Your task to perform on an android device: Open calendar and show me the second week of next month Image 0: 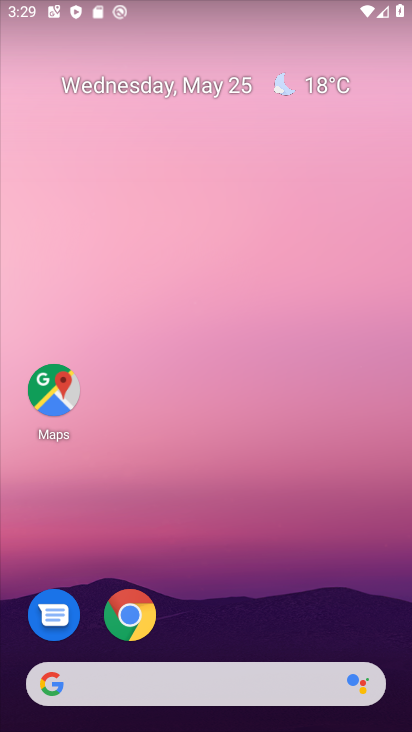
Step 0: click (62, 395)
Your task to perform on an android device: Open calendar and show me the second week of next month Image 1: 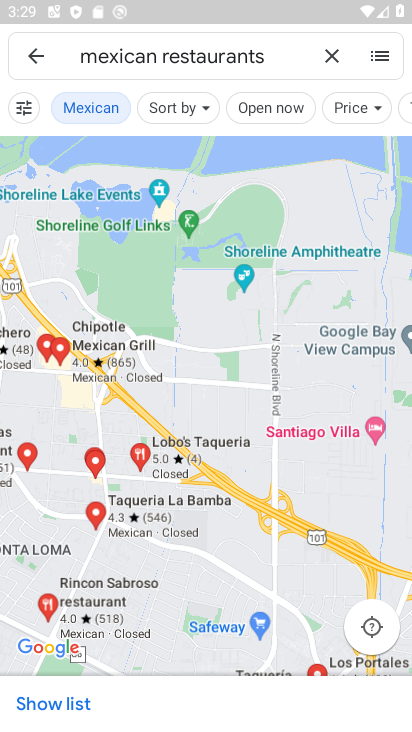
Step 1: drag from (380, 567) to (102, 501)
Your task to perform on an android device: Open calendar and show me the second week of next month Image 2: 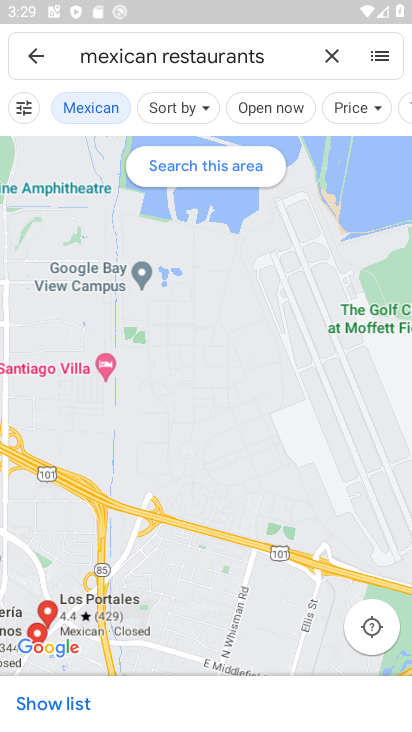
Step 2: click (49, 62)
Your task to perform on an android device: Open calendar and show me the second week of next month Image 3: 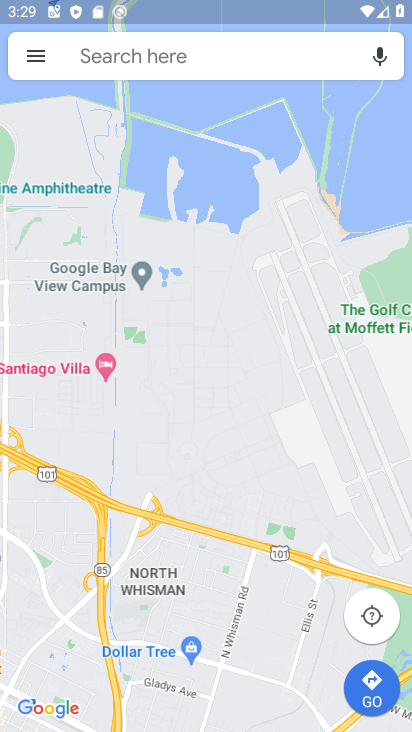
Step 3: click (49, 62)
Your task to perform on an android device: Open calendar and show me the second week of next month Image 4: 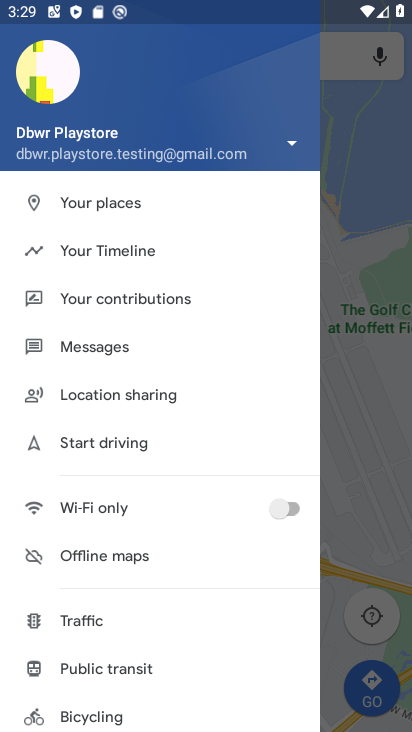
Step 4: drag from (172, 525) to (195, 311)
Your task to perform on an android device: Open calendar and show me the second week of next month Image 5: 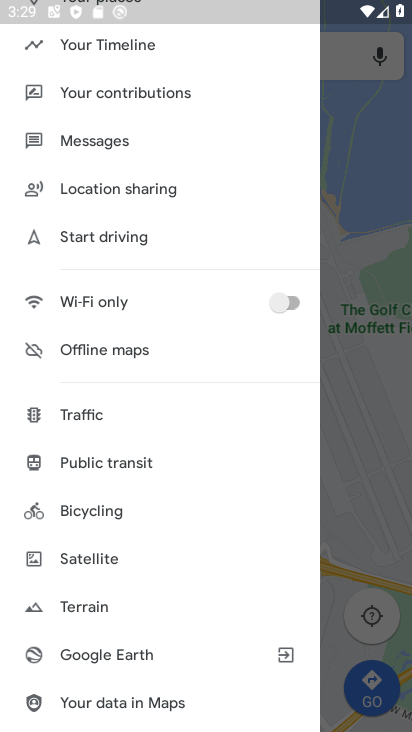
Step 5: press home button
Your task to perform on an android device: Open calendar and show me the second week of next month Image 6: 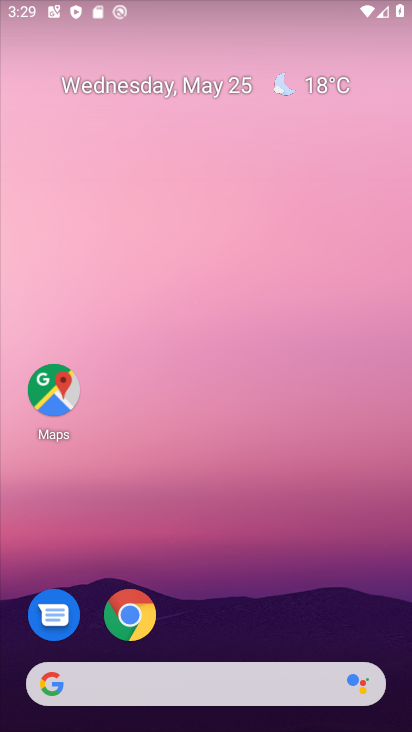
Step 6: drag from (164, 462) to (209, 148)
Your task to perform on an android device: Open calendar and show me the second week of next month Image 7: 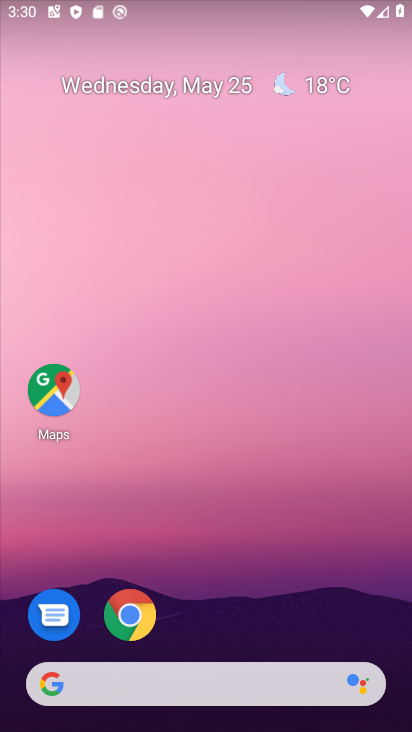
Step 7: drag from (240, 565) to (208, 3)
Your task to perform on an android device: Open calendar and show me the second week of next month Image 8: 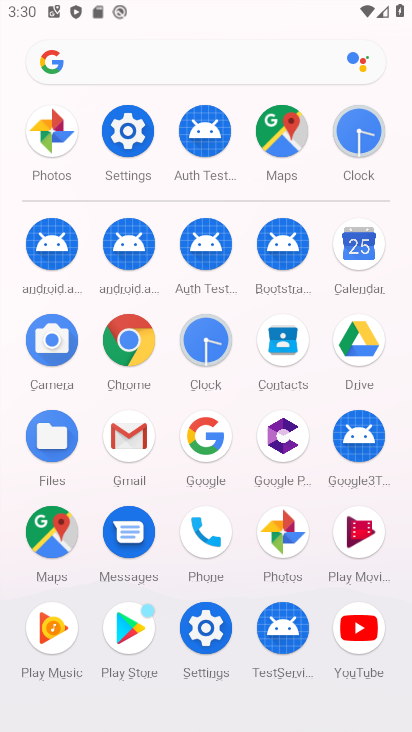
Step 8: click (285, 350)
Your task to perform on an android device: Open calendar and show me the second week of next month Image 9: 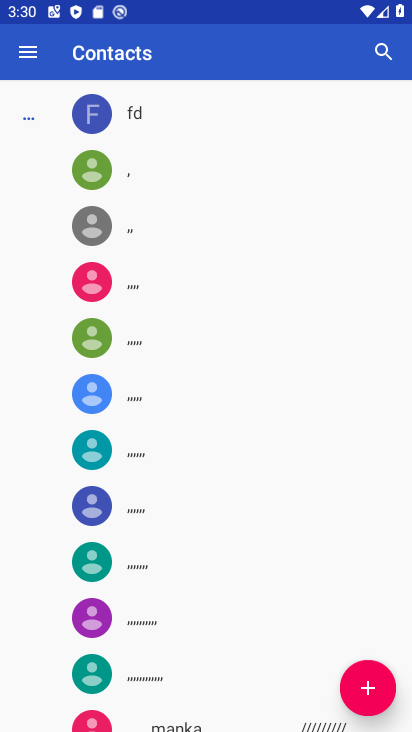
Step 9: press home button
Your task to perform on an android device: Open calendar and show me the second week of next month Image 10: 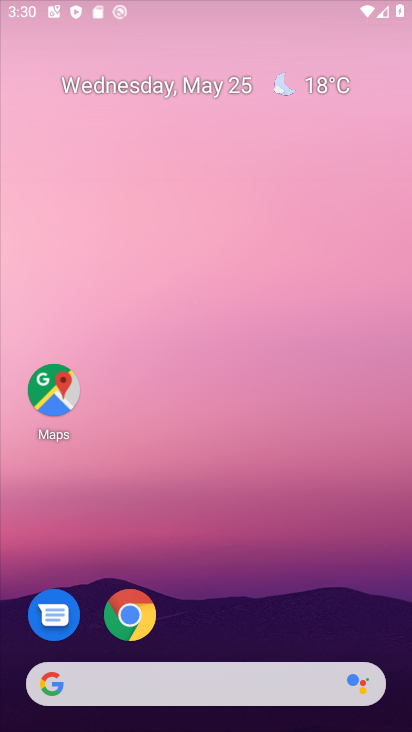
Step 10: drag from (203, 600) to (160, 149)
Your task to perform on an android device: Open calendar and show me the second week of next month Image 11: 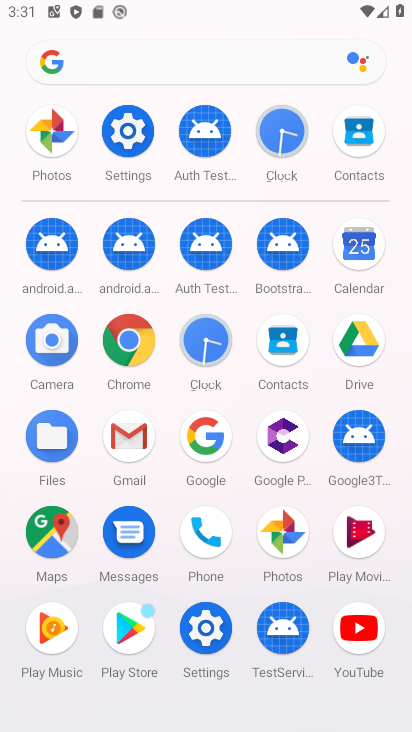
Step 11: click (160, 149)
Your task to perform on an android device: Open calendar and show me the second week of next month Image 12: 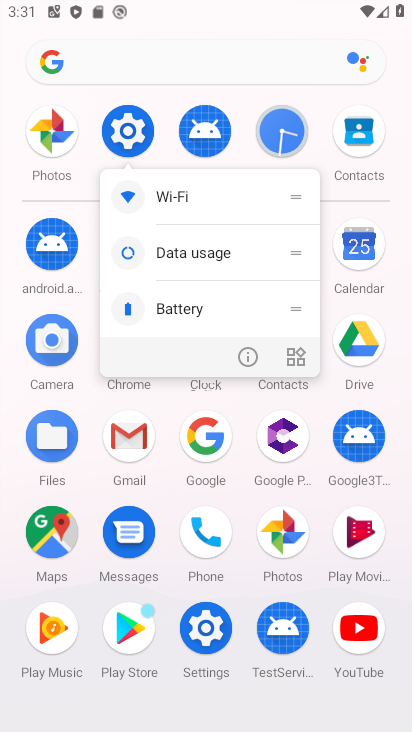
Step 12: drag from (110, 558) to (102, 139)
Your task to perform on an android device: Open calendar and show me the second week of next month Image 13: 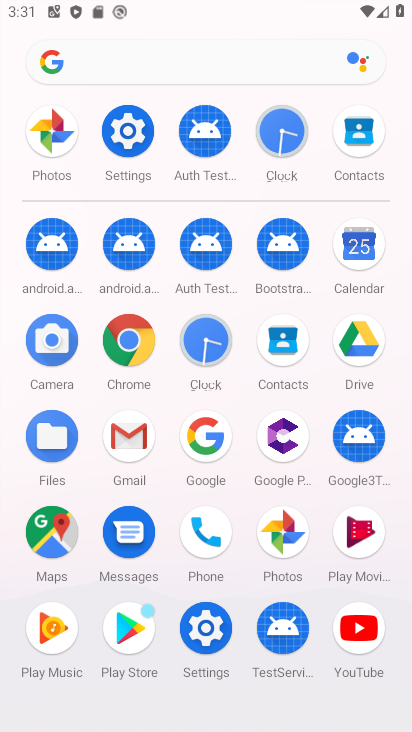
Step 13: click (340, 243)
Your task to perform on an android device: Open calendar and show me the second week of next month Image 14: 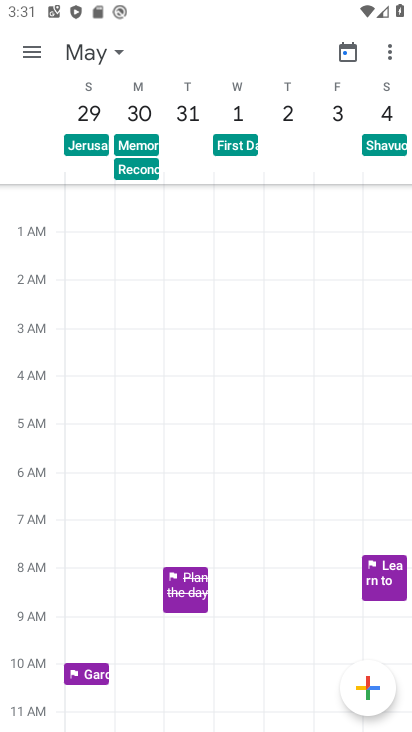
Step 14: click (278, 67)
Your task to perform on an android device: Open calendar and show me the second week of next month Image 15: 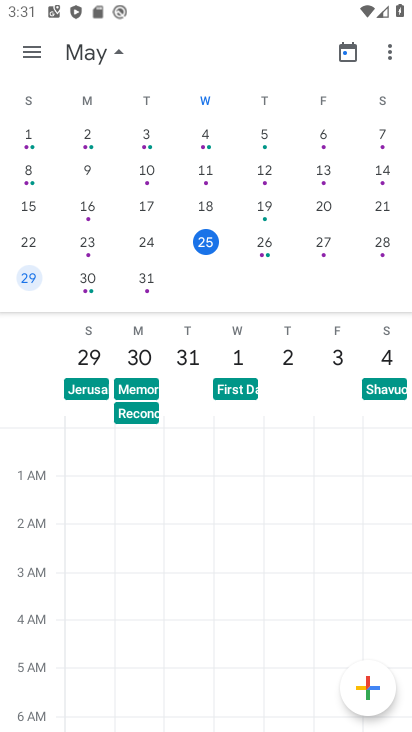
Step 15: drag from (147, 171) to (27, 142)
Your task to perform on an android device: Open calendar and show me the second week of next month Image 16: 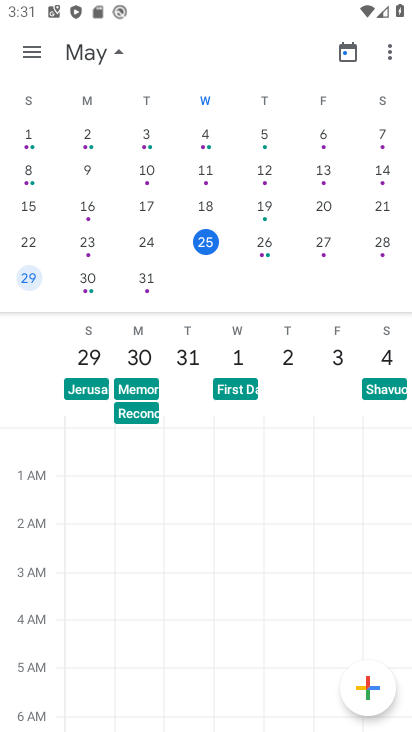
Step 16: drag from (349, 186) to (22, 142)
Your task to perform on an android device: Open calendar and show me the second week of next month Image 17: 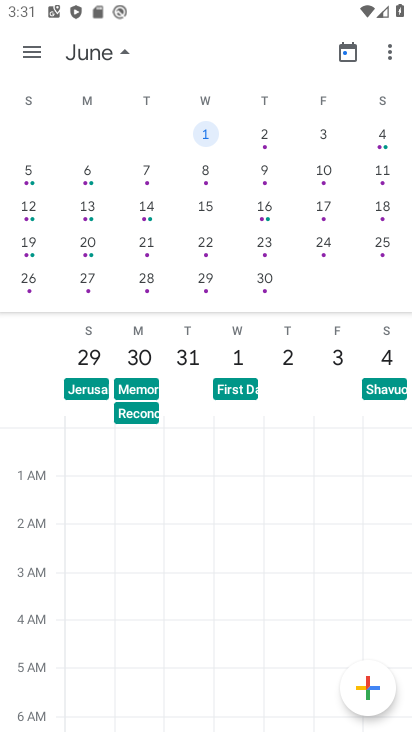
Step 17: click (204, 176)
Your task to perform on an android device: Open calendar and show me the second week of next month Image 18: 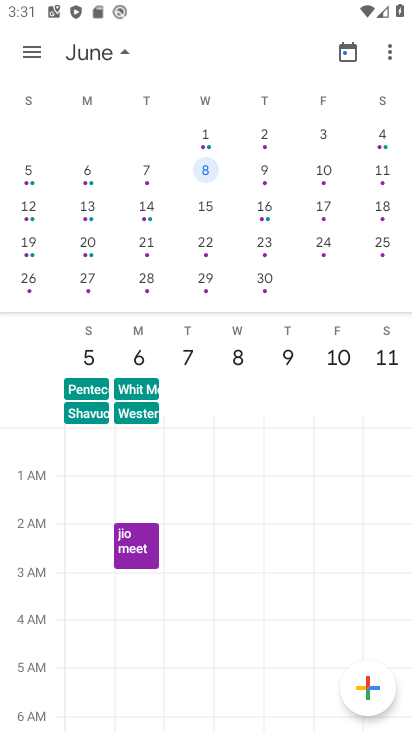
Step 18: click (145, 209)
Your task to perform on an android device: Open calendar and show me the second week of next month Image 19: 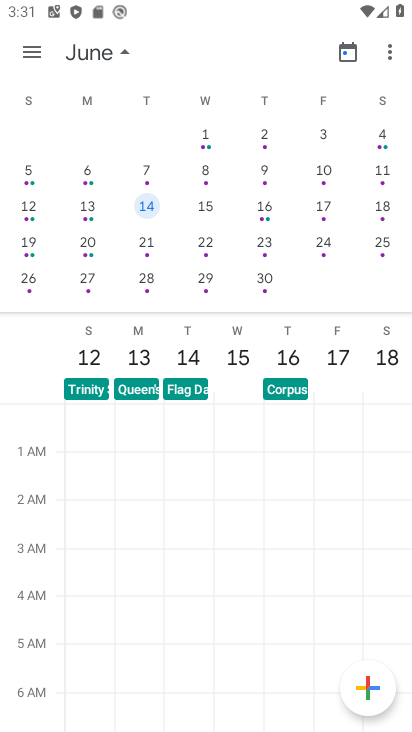
Step 19: task complete